Your task to perform on an android device: turn on data saver in the chrome app Image 0: 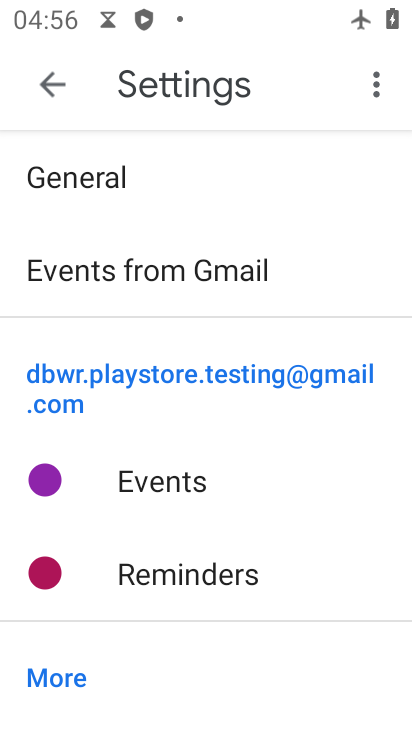
Step 0: press home button
Your task to perform on an android device: turn on data saver in the chrome app Image 1: 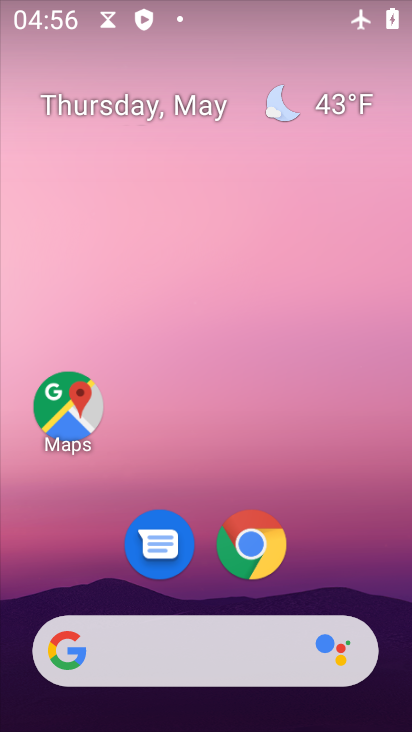
Step 1: click (247, 546)
Your task to perform on an android device: turn on data saver in the chrome app Image 2: 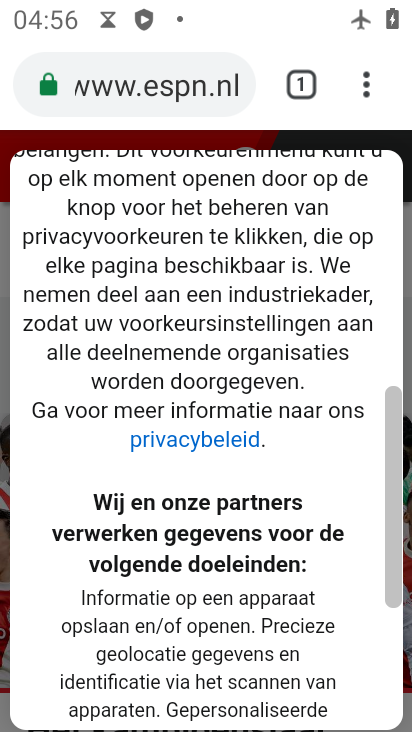
Step 2: click (354, 74)
Your task to perform on an android device: turn on data saver in the chrome app Image 3: 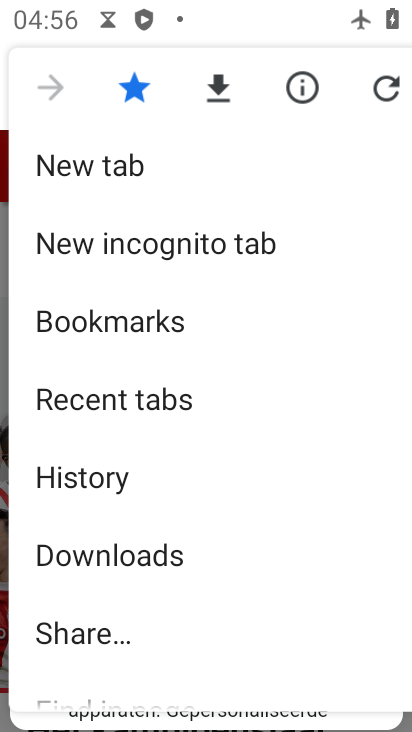
Step 3: drag from (256, 598) to (279, 288)
Your task to perform on an android device: turn on data saver in the chrome app Image 4: 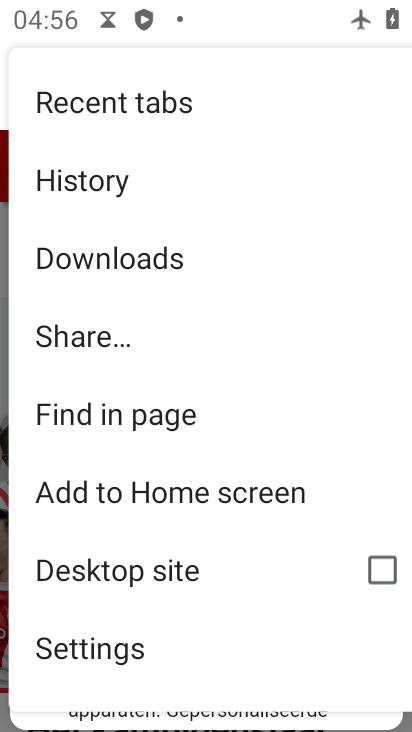
Step 4: click (164, 642)
Your task to perform on an android device: turn on data saver in the chrome app Image 5: 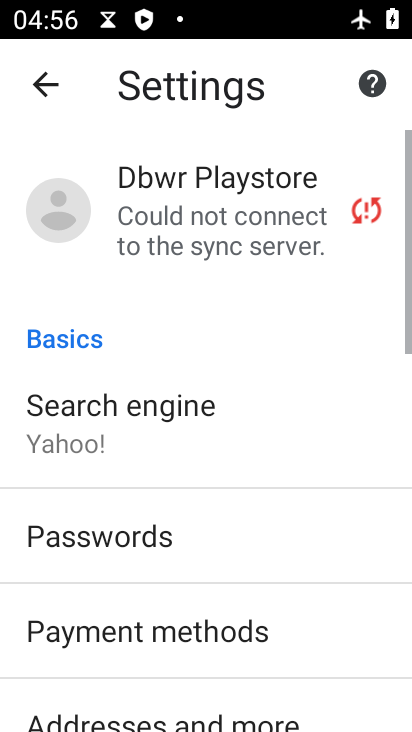
Step 5: drag from (164, 642) to (183, 214)
Your task to perform on an android device: turn on data saver in the chrome app Image 6: 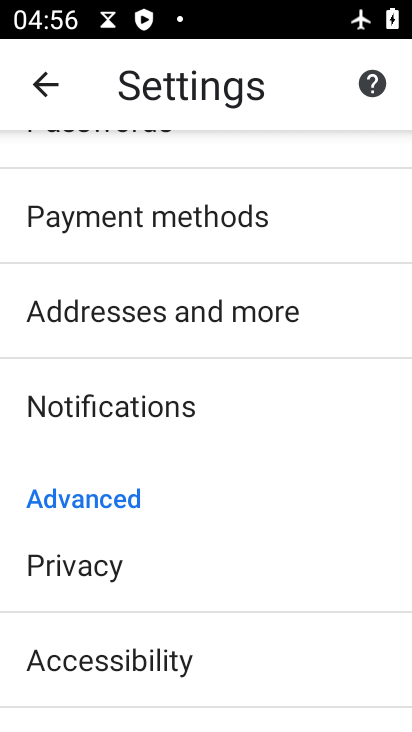
Step 6: drag from (103, 631) to (113, 330)
Your task to perform on an android device: turn on data saver in the chrome app Image 7: 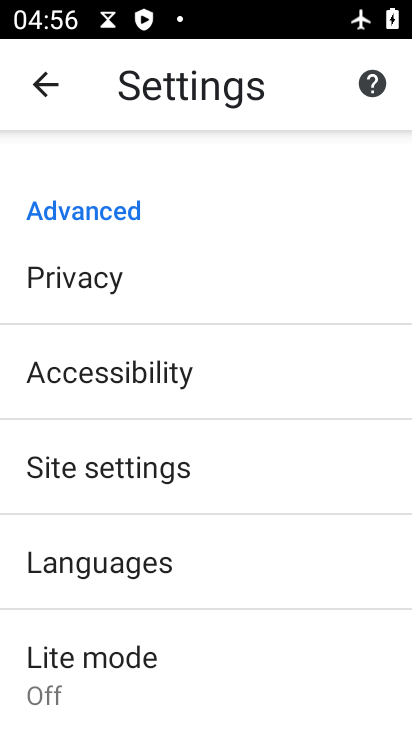
Step 7: click (137, 657)
Your task to perform on an android device: turn on data saver in the chrome app Image 8: 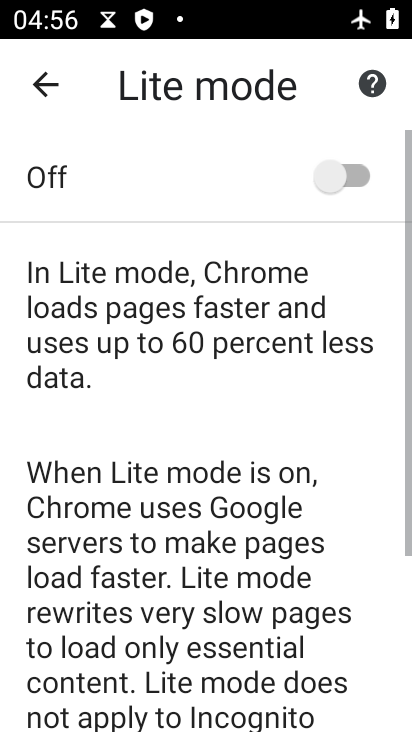
Step 8: click (339, 174)
Your task to perform on an android device: turn on data saver in the chrome app Image 9: 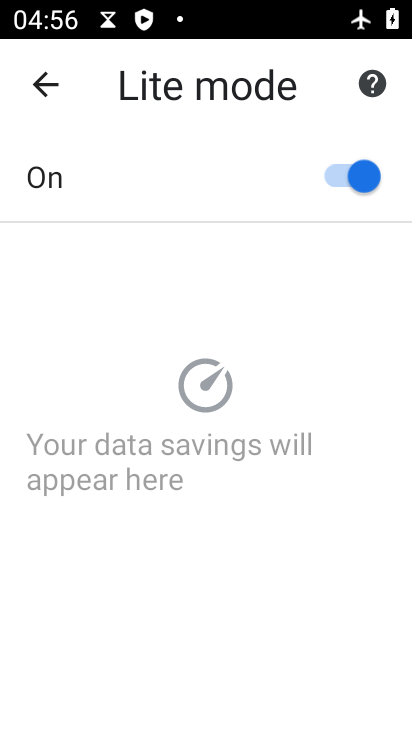
Step 9: task complete